Your task to perform on an android device: Do I have any events this weekend? Image 0: 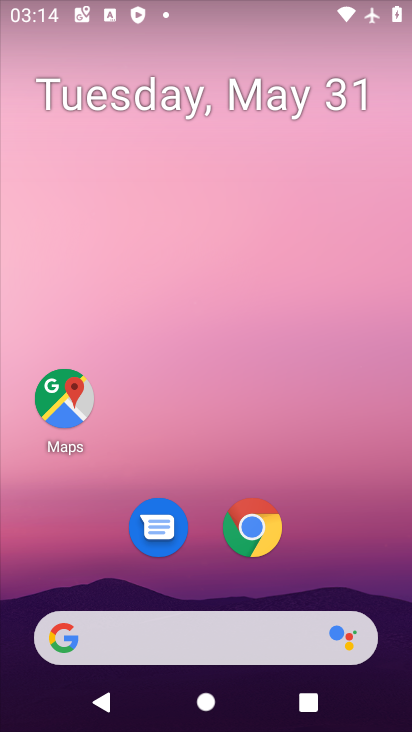
Step 0: drag from (397, 631) to (320, 64)
Your task to perform on an android device: Do I have any events this weekend? Image 1: 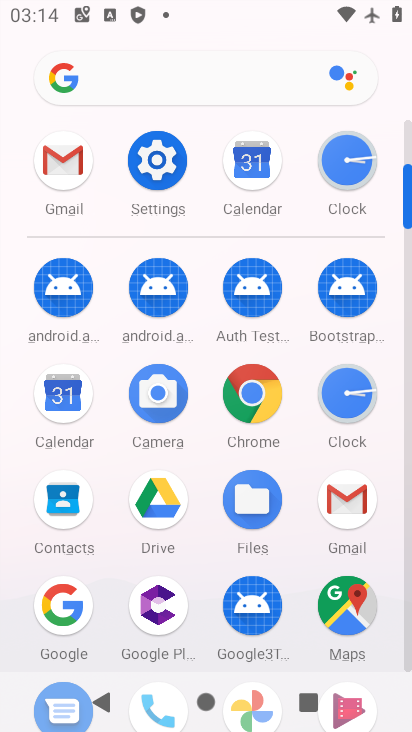
Step 1: click (58, 395)
Your task to perform on an android device: Do I have any events this weekend? Image 2: 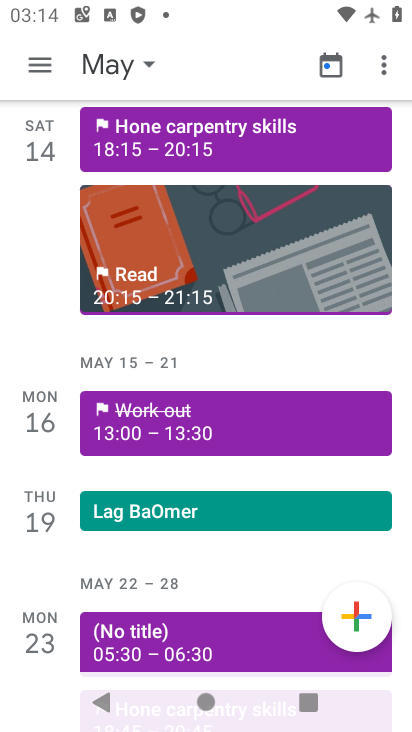
Step 2: click (46, 65)
Your task to perform on an android device: Do I have any events this weekend? Image 3: 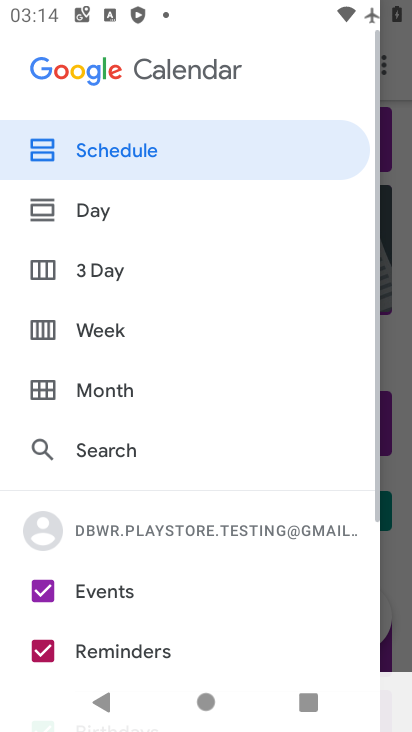
Step 3: click (109, 333)
Your task to perform on an android device: Do I have any events this weekend? Image 4: 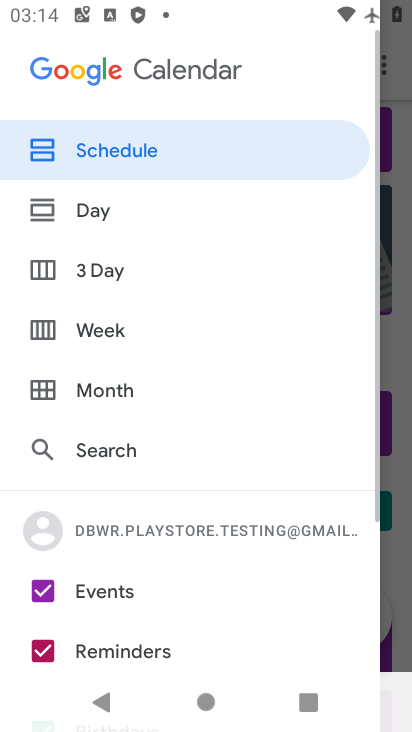
Step 4: click (101, 327)
Your task to perform on an android device: Do I have any events this weekend? Image 5: 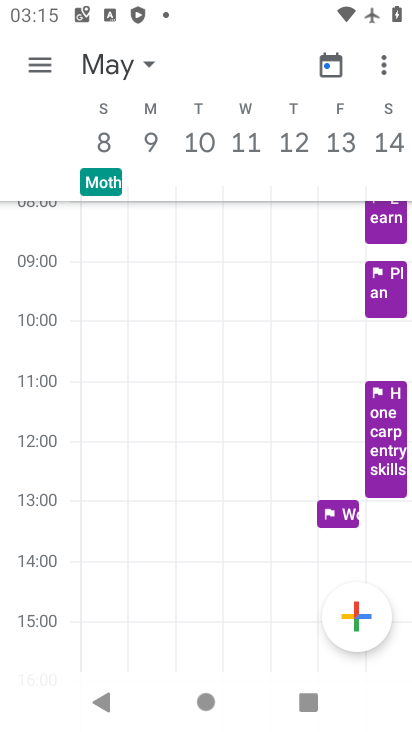
Step 5: task complete